Your task to perform on an android device: turn off translation in the chrome app Image 0: 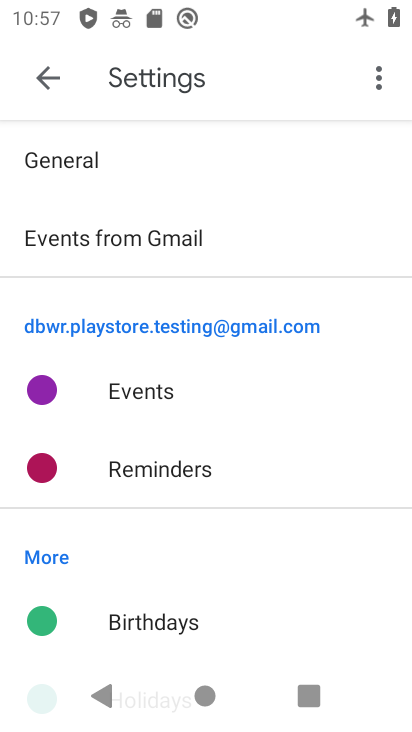
Step 0: press home button
Your task to perform on an android device: turn off translation in the chrome app Image 1: 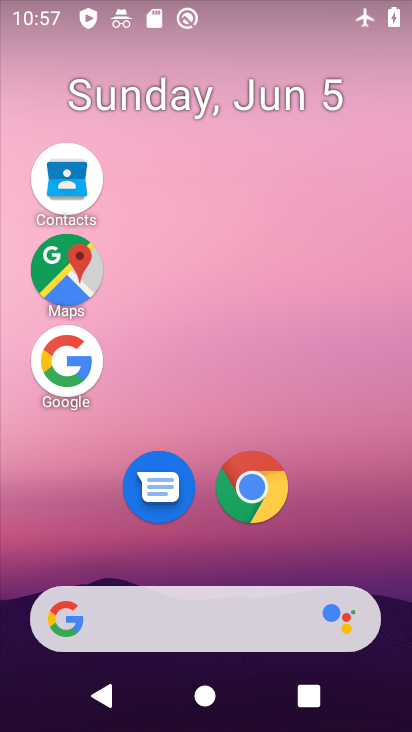
Step 1: drag from (285, 644) to (333, 168)
Your task to perform on an android device: turn off translation in the chrome app Image 2: 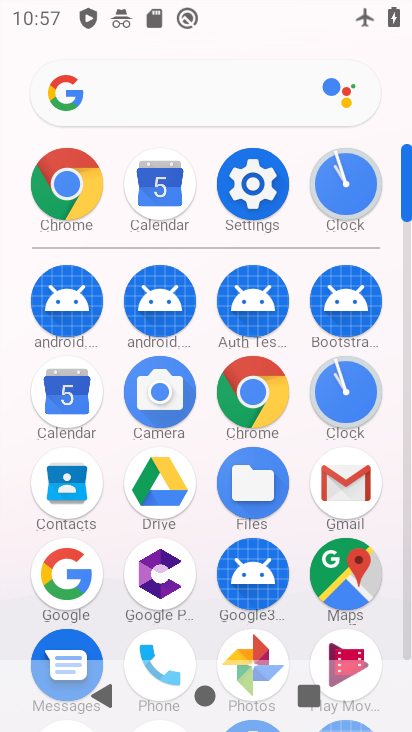
Step 2: click (63, 195)
Your task to perform on an android device: turn off translation in the chrome app Image 3: 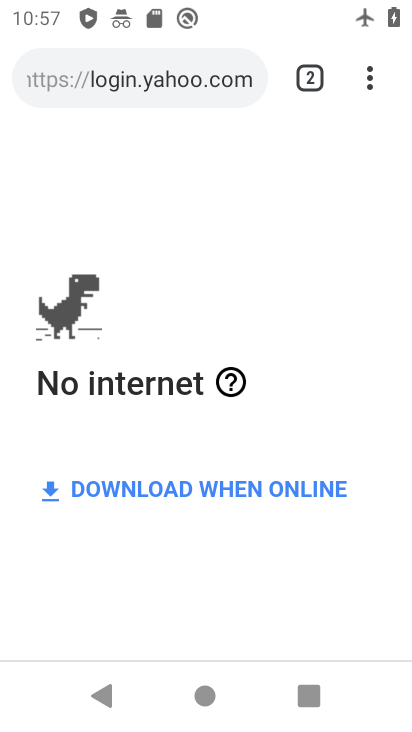
Step 3: click (373, 88)
Your task to perform on an android device: turn off translation in the chrome app Image 4: 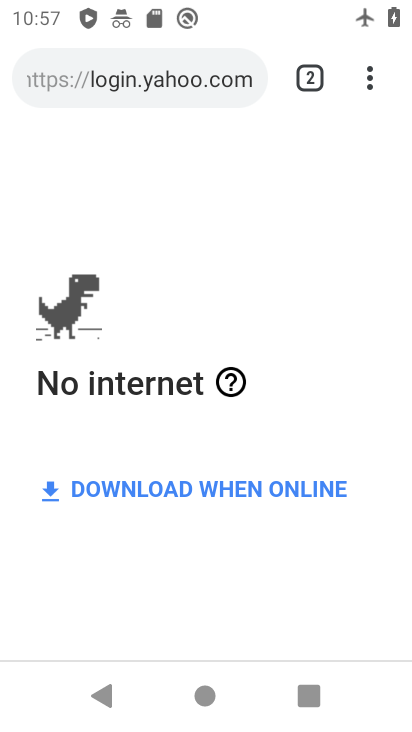
Step 4: click (380, 70)
Your task to perform on an android device: turn off translation in the chrome app Image 5: 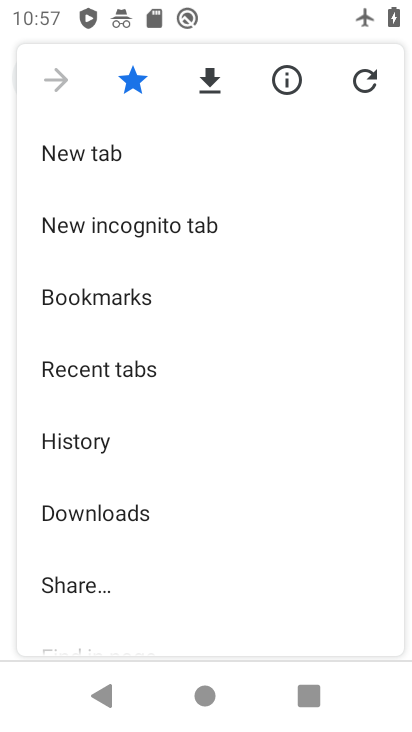
Step 5: task complete